Your task to perform on an android device: Search for Mexican restaurants on Maps Image 0: 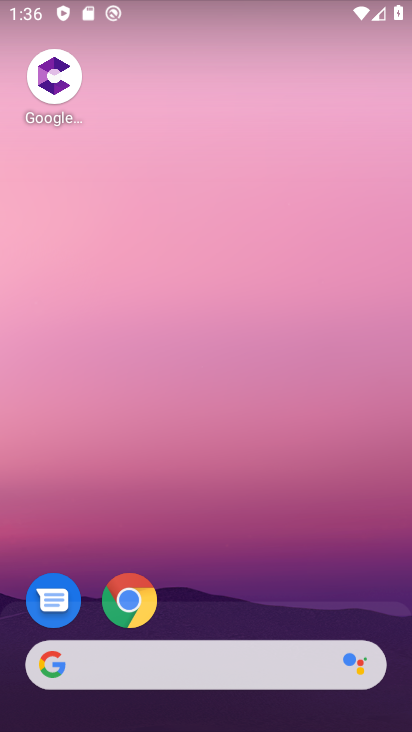
Step 0: drag from (276, 578) to (255, 43)
Your task to perform on an android device: Search for Mexican restaurants on Maps Image 1: 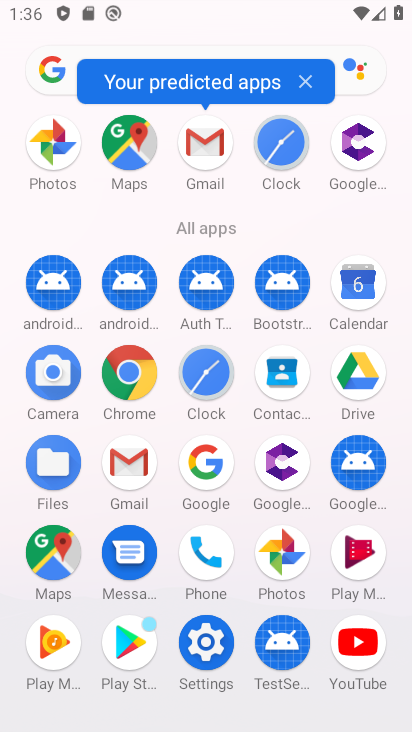
Step 1: drag from (0, 543) to (0, 217)
Your task to perform on an android device: Search for Mexican restaurants on Maps Image 2: 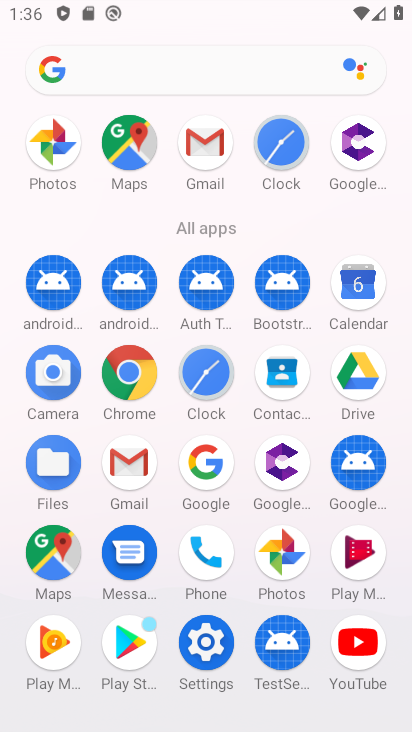
Step 2: drag from (3, 557) to (8, 265)
Your task to perform on an android device: Search for Mexican restaurants on Maps Image 3: 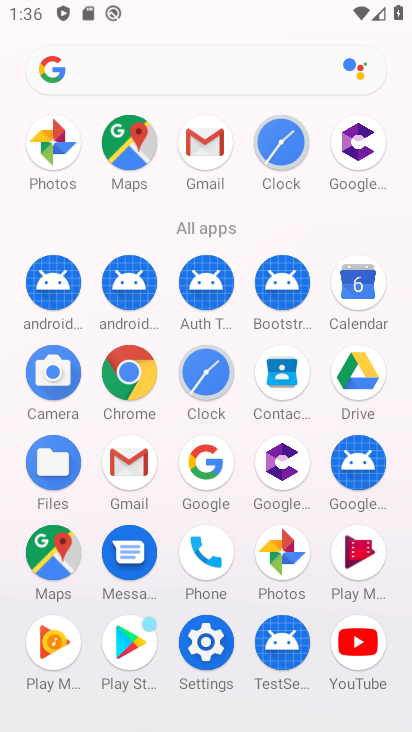
Step 3: click (51, 546)
Your task to perform on an android device: Search for Mexican restaurants on Maps Image 4: 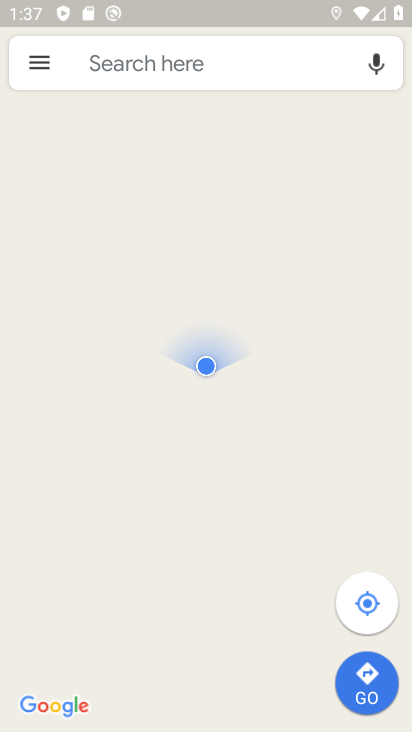
Step 4: click (229, 60)
Your task to perform on an android device: Search for Mexican restaurants on Maps Image 5: 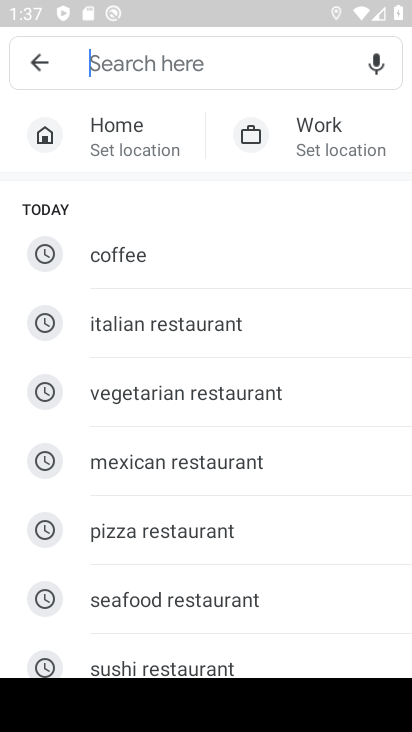
Step 5: type "Mexican restaurants"
Your task to perform on an android device: Search for Mexican restaurants on Maps Image 6: 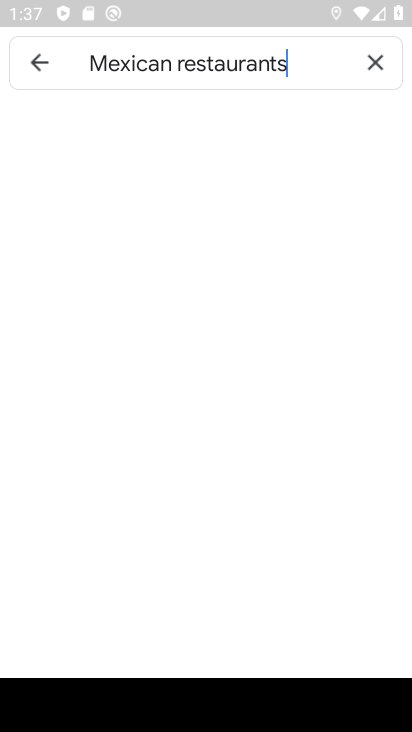
Step 6: type ""
Your task to perform on an android device: Search for Mexican restaurants on Maps Image 7: 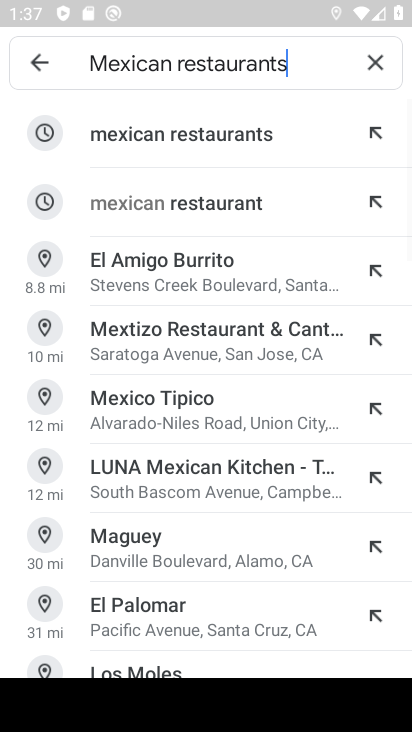
Step 7: click (200, 135)
Your task to perform on an android device: Search for Mexican restaurants on Maps Image 8: 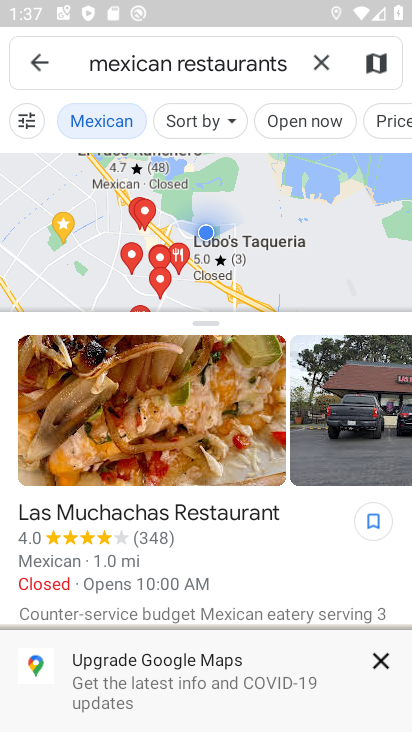
Step 8: task complete